Your task to perform on an android device: change text size in settings app Image 0: 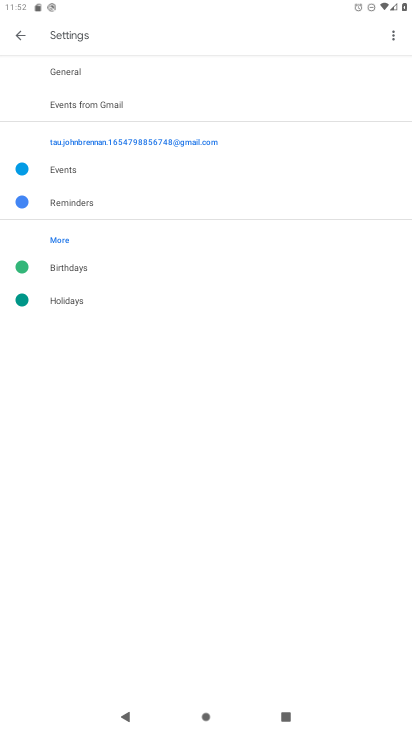
Step 0: press home button
Your task to perform on an android device: change text size in settings app Image 1: 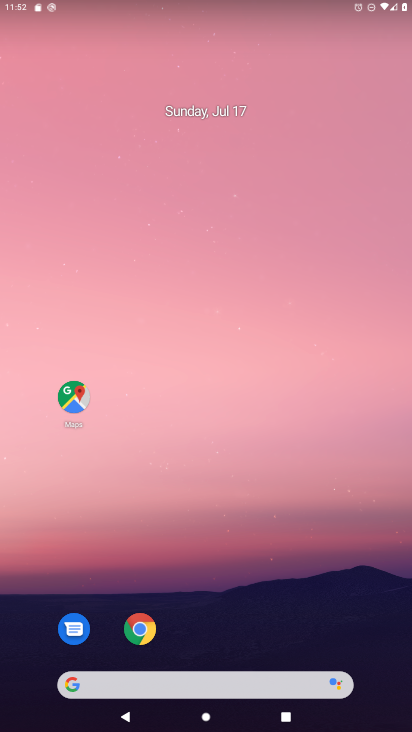
Step 1: drag from (200, 685) to (325, 129)
Your task to perform on an android device: change text size in settings app Image 2: 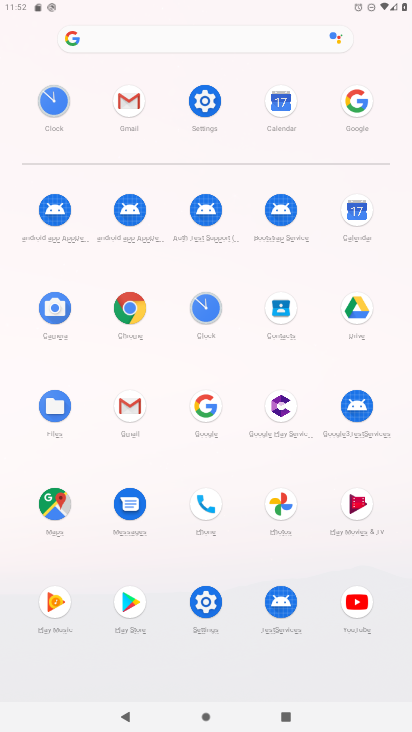
Step 2: click (205, 100)
Your task to perform on an android device: change text size in settings app Image 3: 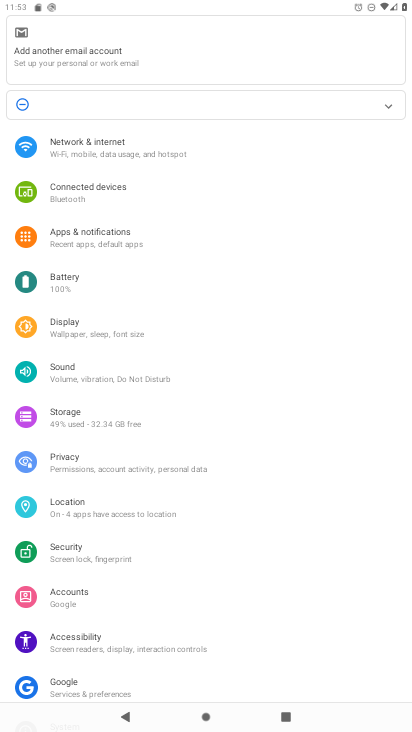
Step 3: click (148, 646)
Your task to perform on an android device: change text size in settings app Image 4: 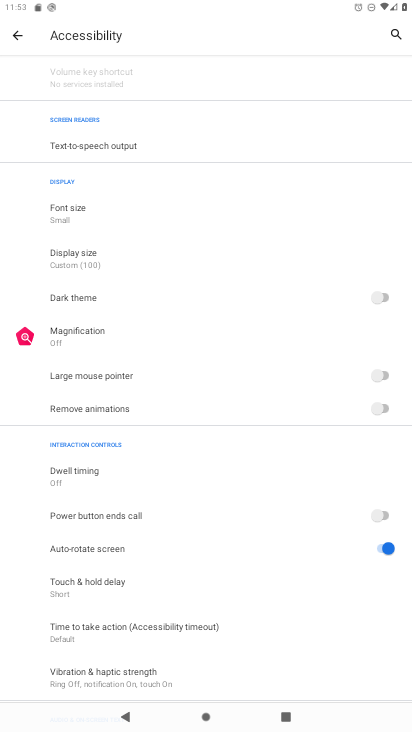
Step 4: click (95, 215)
Your task to perform on an android device: change text size in settings app Image 5: 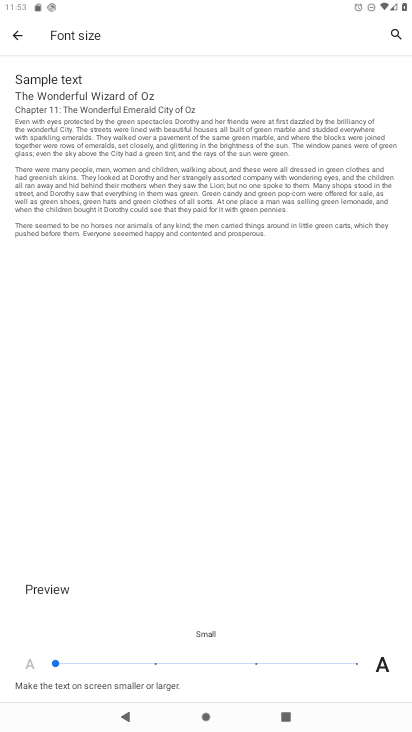
Step 5: click (252, 662)
Your task to perform on an android device: change text size in settings app Image 6: 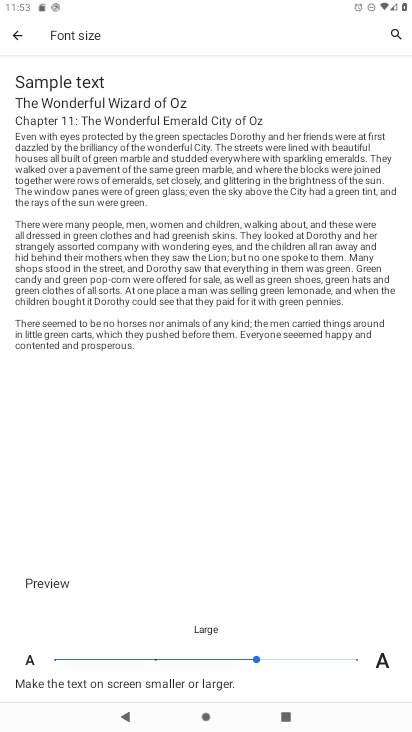
Step 6: task complete